Your task to perform on an android device: open a bookmark in the chrome app Image 0: 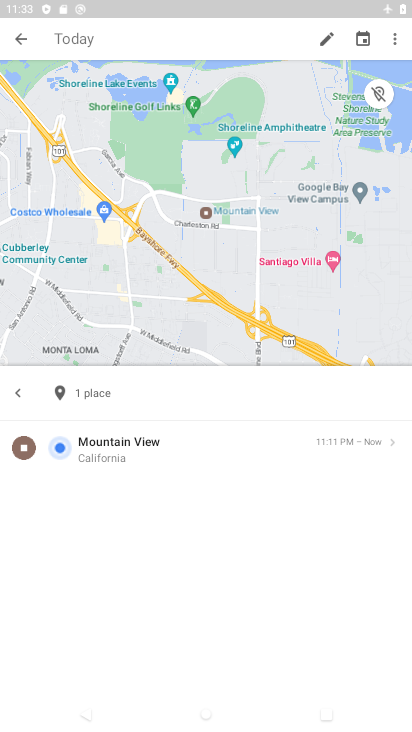
Step 0: press home button
Your task to perform on an android device: open a bookmark in the chrome app Image 1: 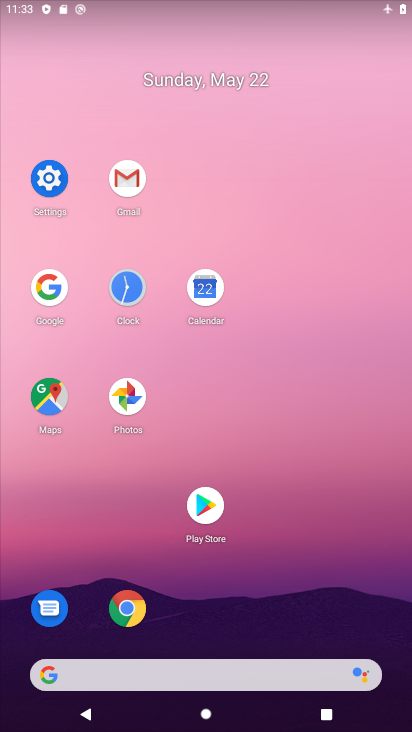
Step 1: click (129, 617)
Your task to perform on an android device: open a bookmark in the chrome app Image 2: 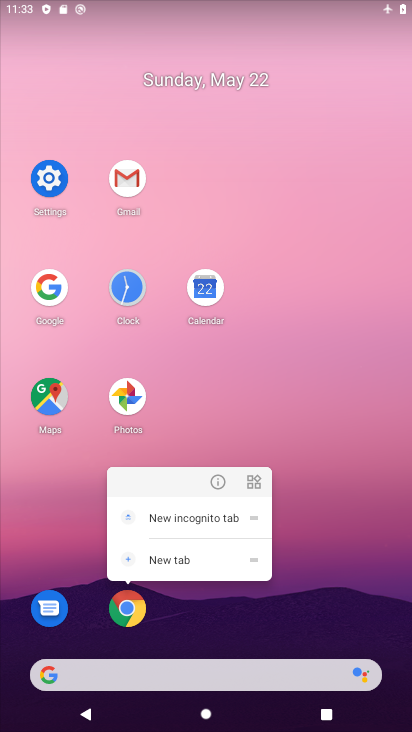
Step 2: click (136, 617)
Your task to perform on an android device: open a bookmark in the chrome app Image 3: 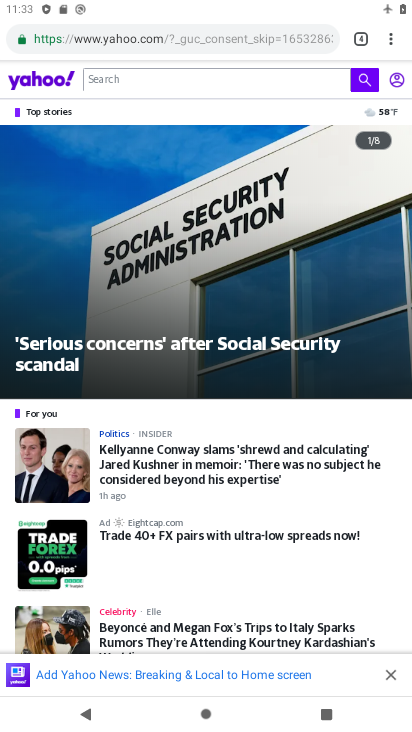
Step 3: click (387, 38)
Your task to perform on an android device: open a bookmark in the chrome app Image 4: 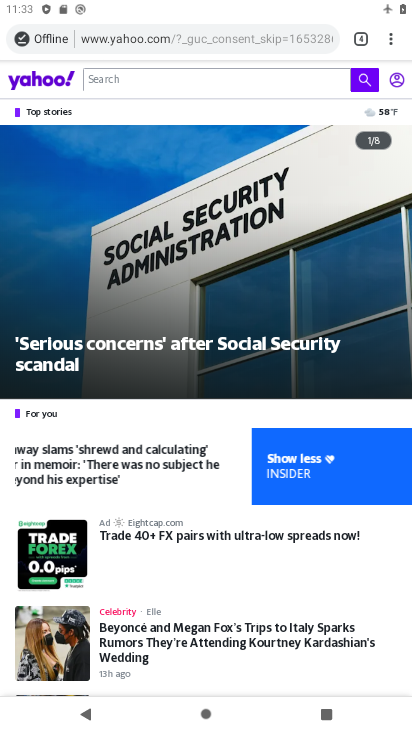
Step 4: click (397, 43)
Your task to perform on an android device: open a bookmark in the chrome app Image 5: 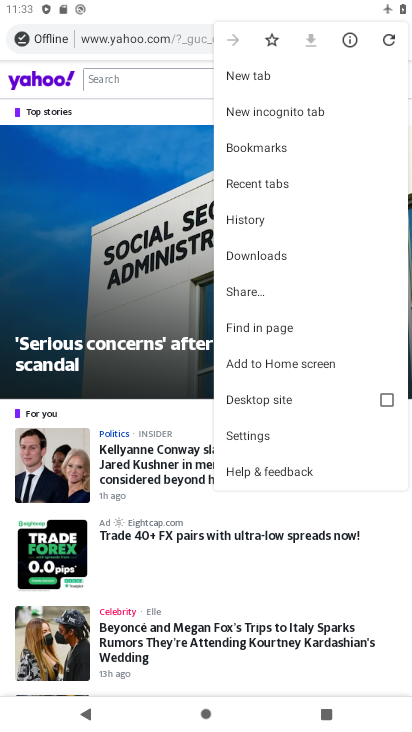
Step 5: click (282, 138)
Your task to perform on an android device: open a bookmark in the chrome app Image 6: 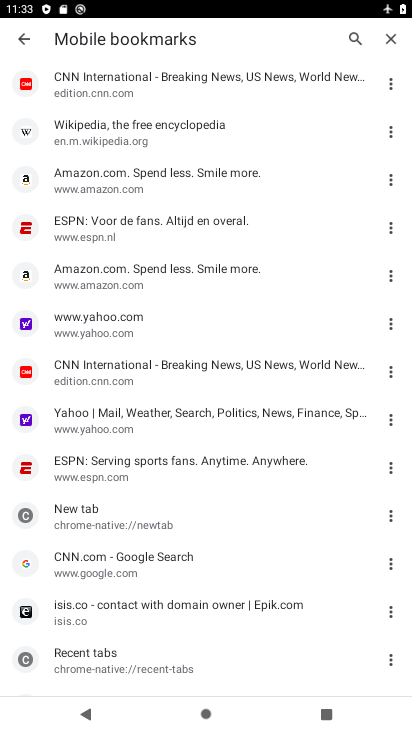
Step 6: task complete